Your task to perform on an android device: Open the phone app and click the voicemail tab. Image 0: 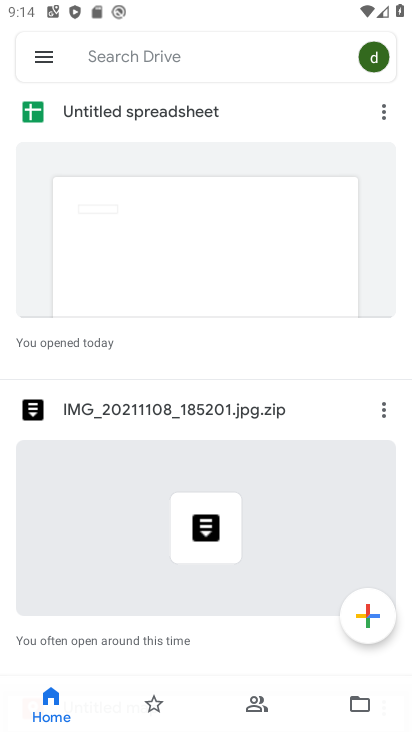
Step 0: press home button
Your task to perform on an android device: Open the phone app and click the voicemail tab. Image 1: 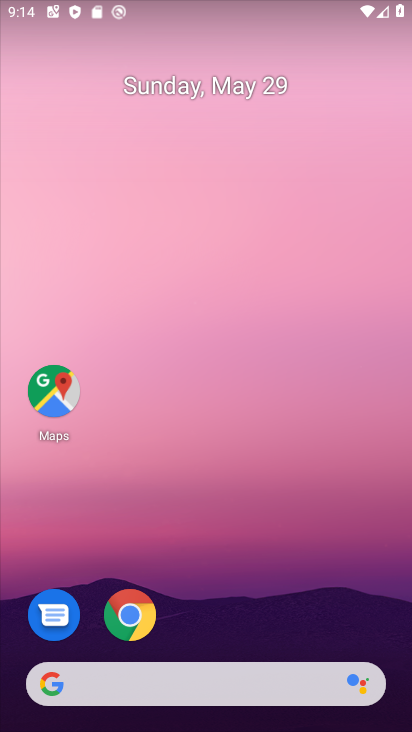
Step 1: drag from (266, 630) to (275, 0)
Your task to perform on an android device: Open the phone app and click the voicemail tab. Image 2: 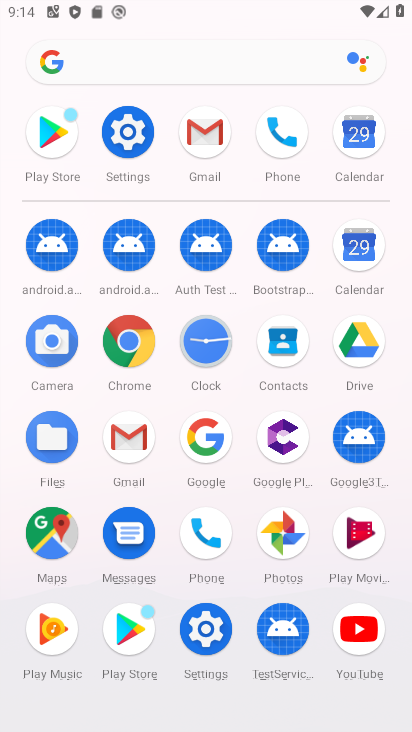
Step 2: click (284, 136)
Your task to perform on an android device: Open the phone app and click the voicemail tab. Image 3: 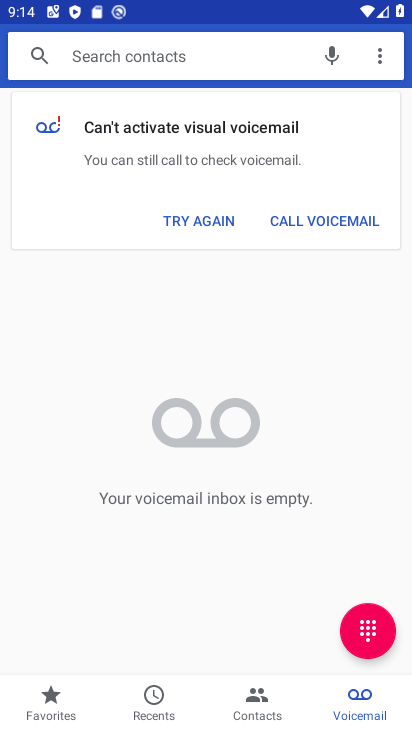
Step 3: click (360, 710)
Your task to perform on an android device: Open the phone app and click the voicemail tab. Image 4: 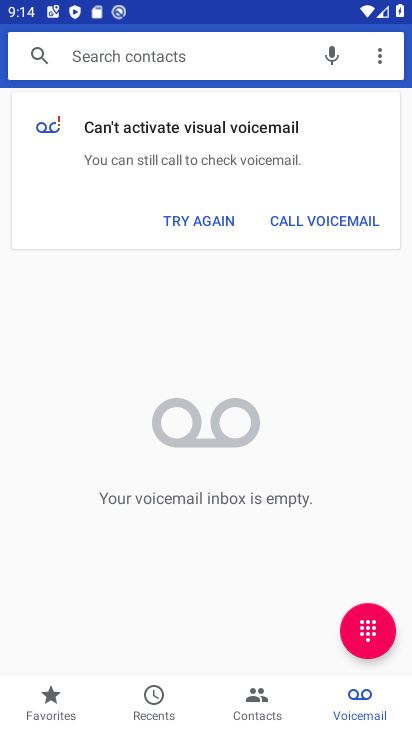
Step 4: task complete